Your task to perform on an android device: Go to CNN.com Image 0: 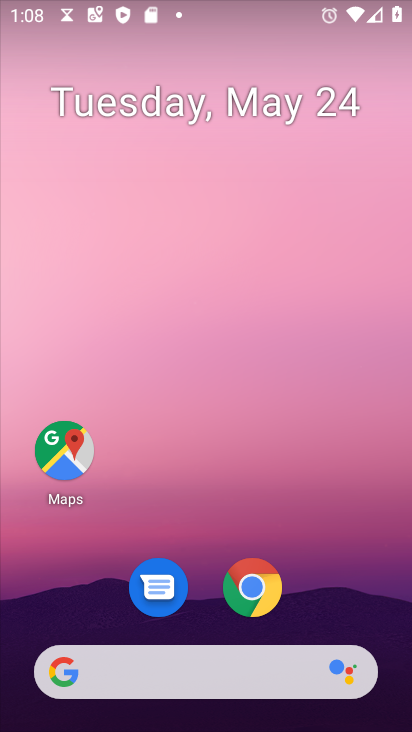
Step 0: click (267, 579)
Your task to perform on an android device: Go to CNN.com Image 1: 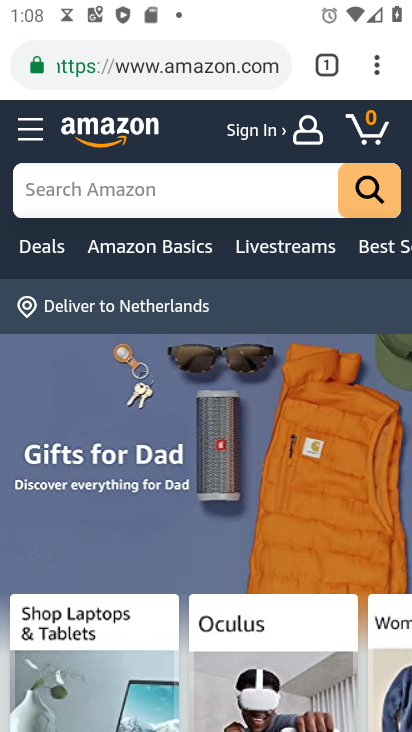
Step 1: click (220, 61)
Your task to perform on an android device: Go to CNN.com Image 2: 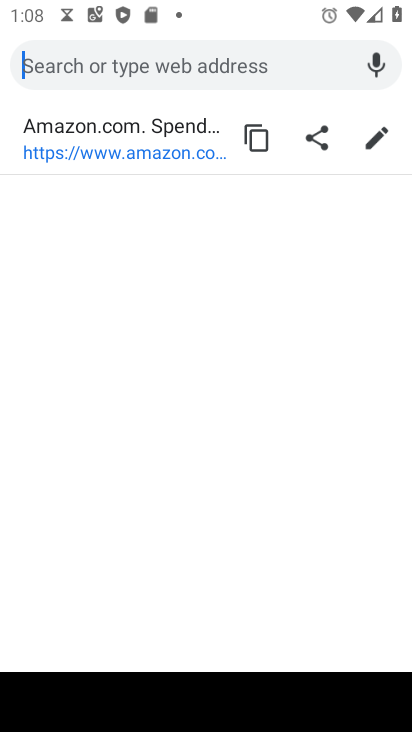
Step 2: type "cnn.com"
Your task to perform on an android device: Go to CNN.com Image 3: 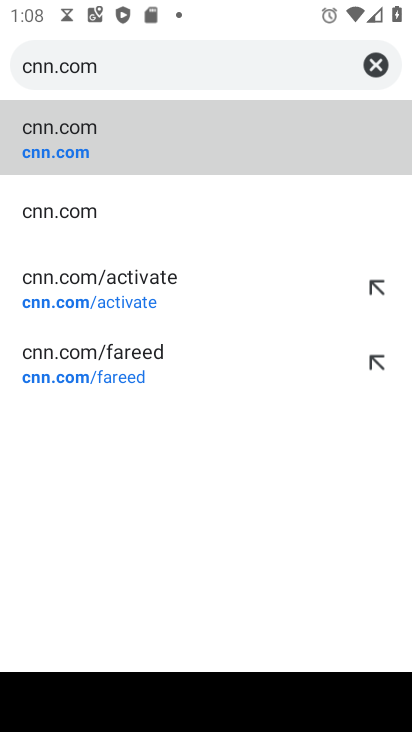
Step 3: click (170, 142)
Your task to perform on an android device: Go to CNN.com Image 4: 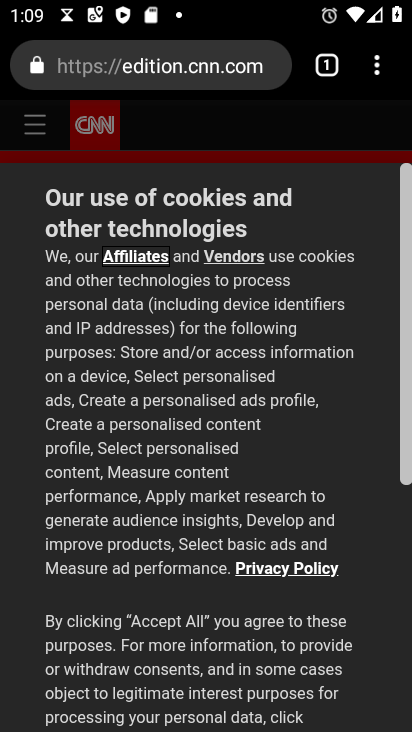
Step 4: task complete